Your task to perform on an android device: Search for bose soundlink on walmart.com, select the first entry, add it to the cart, then select checkout. Image 0: 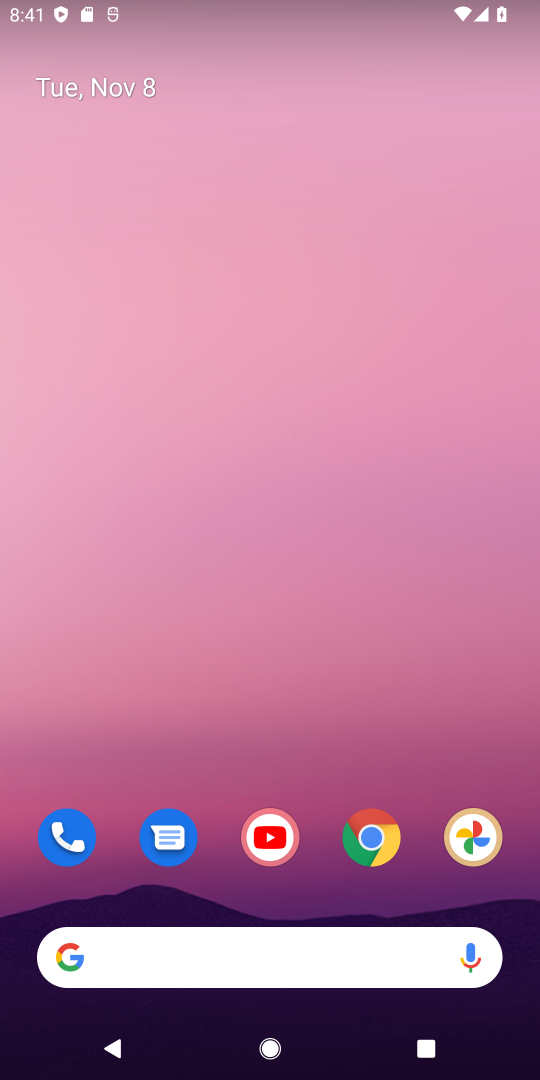
Step 0: click (359, 840)
Your task to perform on an android device: Search for bose soundlink on walmart.com, select the first entry, add it to the cart, then select checkout. Image 1: 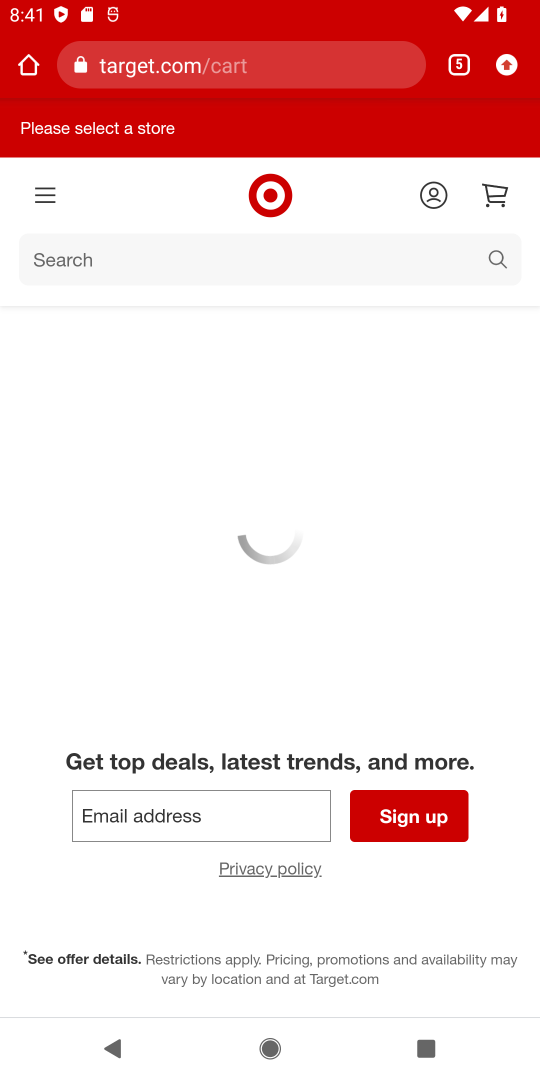
Step 1: click (471, 61)
Your task to perform on an android device: Search for bose soundlink on walmart.com, select the first entry, add it to the cart, then select checkout. Image 2: 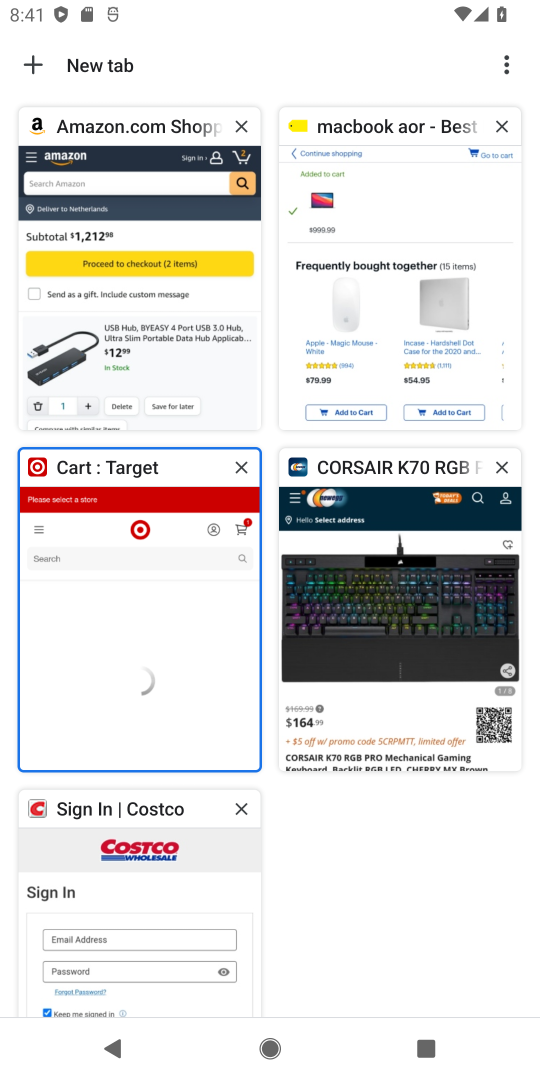
Step 2: click (40, 72)
Your task to perform on an android device: Search for bose soundlink on walmart.com, select the first entry, add it to the cart, then select checkout. Image 3: 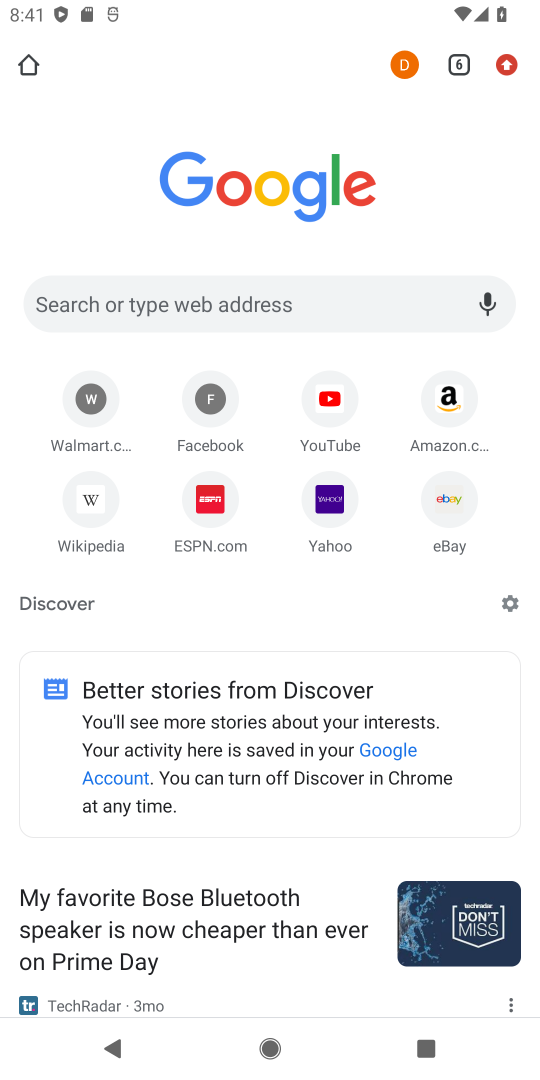
Step 3: click (295, 295)
Your task to perform on an android device: Search for bose soundlink on walmart.com, select the first entry, add it to the cart, then select checkout. Image 4: 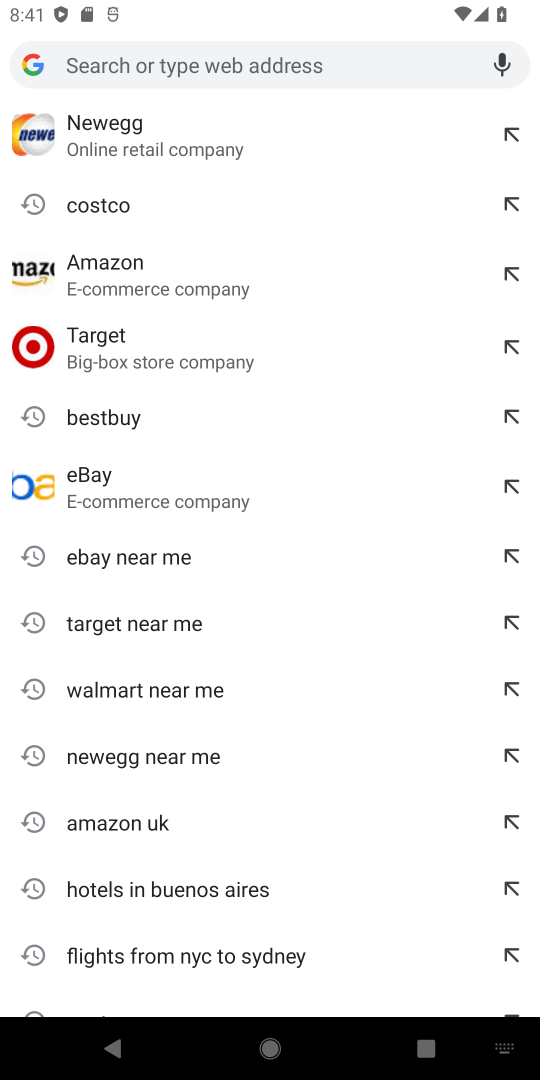
Step 4: type "walmart"
Your task to perform on an android device: Search for bose soundlink on walmart.com, select the first entry, add it to the cart, then select checkout. Image 5: 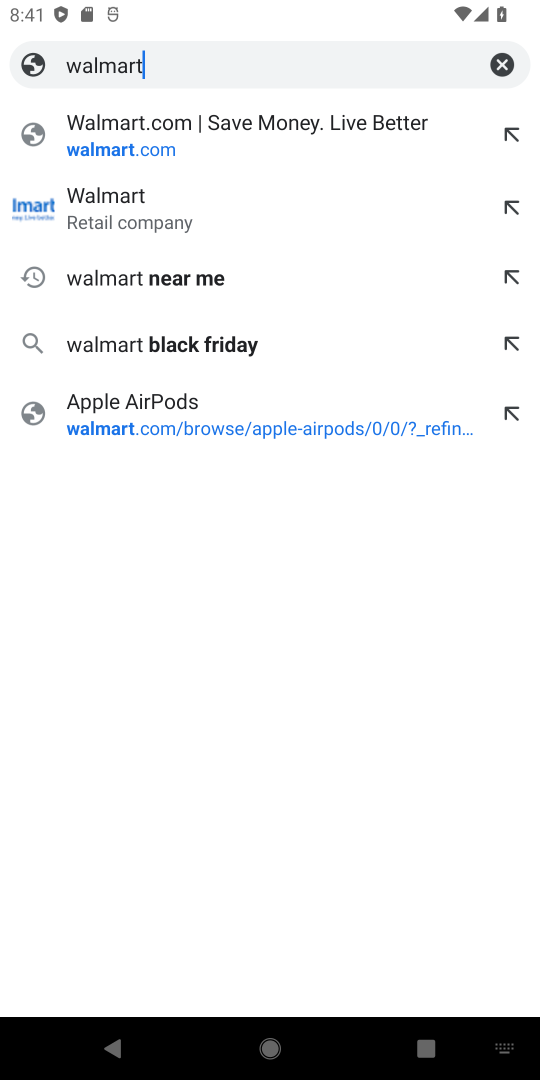
Step 5: click (77, 139)
Your task to perform on an android device: Search for bose soundlink on walmart.com, select the first entry, add it to the cart, then select checkout. Image 6: 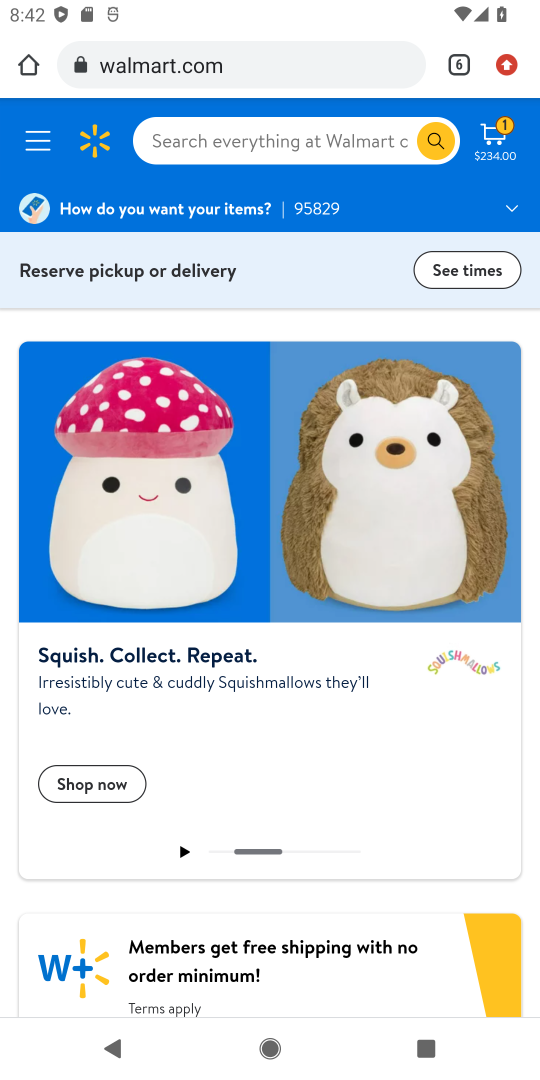
Step 6: click (237, 136)
Your task to perform on an android device: Search for bose soundlink on walmart.com, select the first entry, add it to the cart, then select checkout. Image 7: 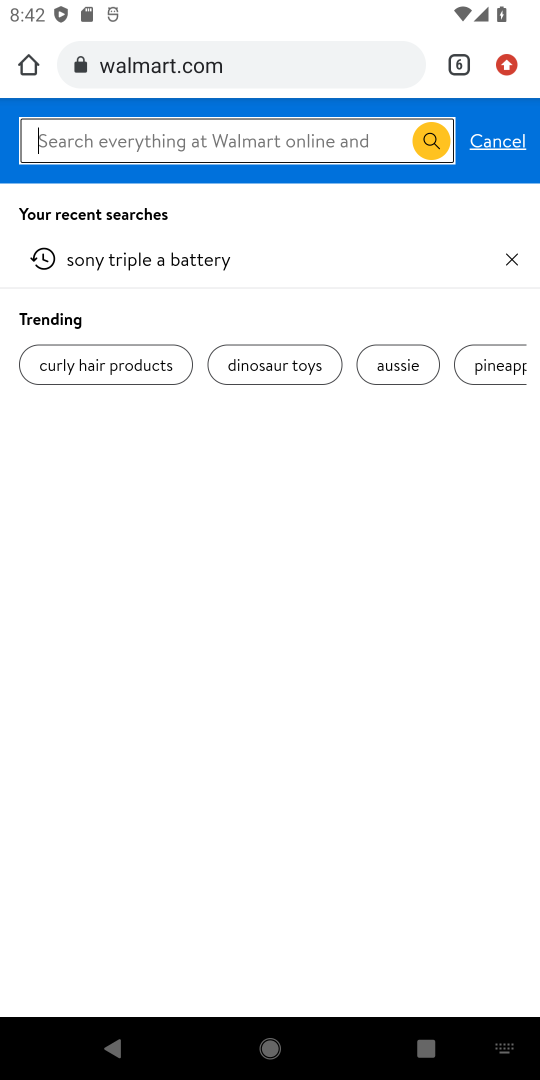
Step 7: type "bose soundlink"
Your task to perform on an android device: Search for bose soundlink on walmart.com, select the first entry, add it to the cart, then select checkout. Image 8: 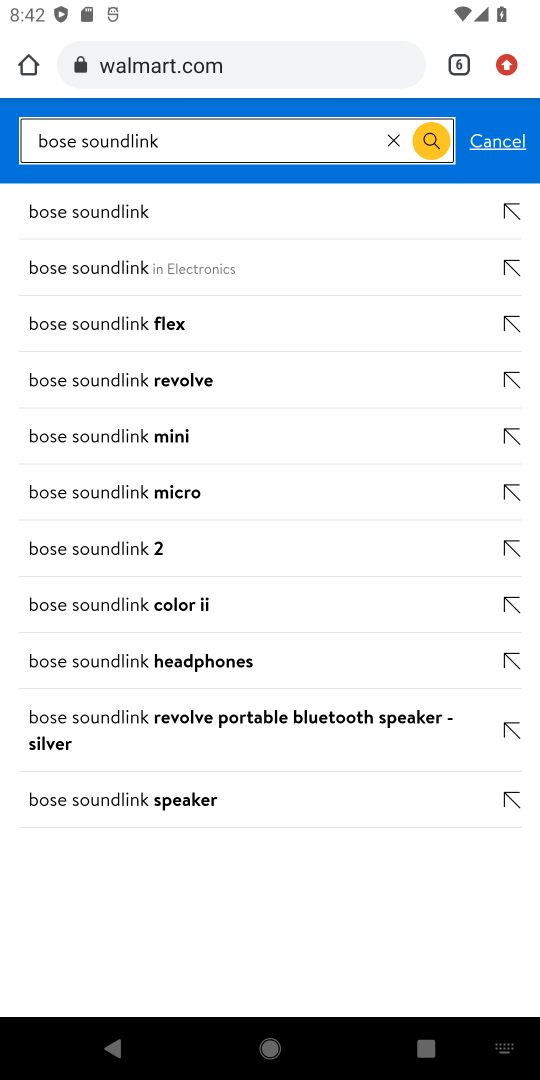
Step 8: click (88, 264)
Your task to perform on an android device: Search for bose soundlink on walmart.com, select the first entry, add it to the cart, then select checkout. Image 9: 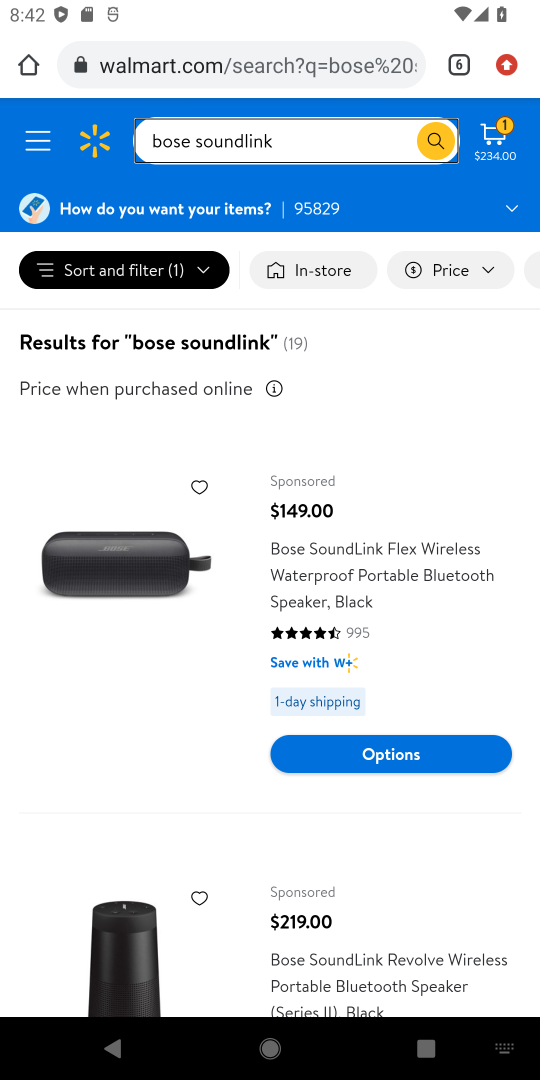
Step 9: click (439, 586)
Your task to perform on an android device: Search for bose soundlink on walmart.com, select the first entry, add it to the cart, then select checkout. Image 10: 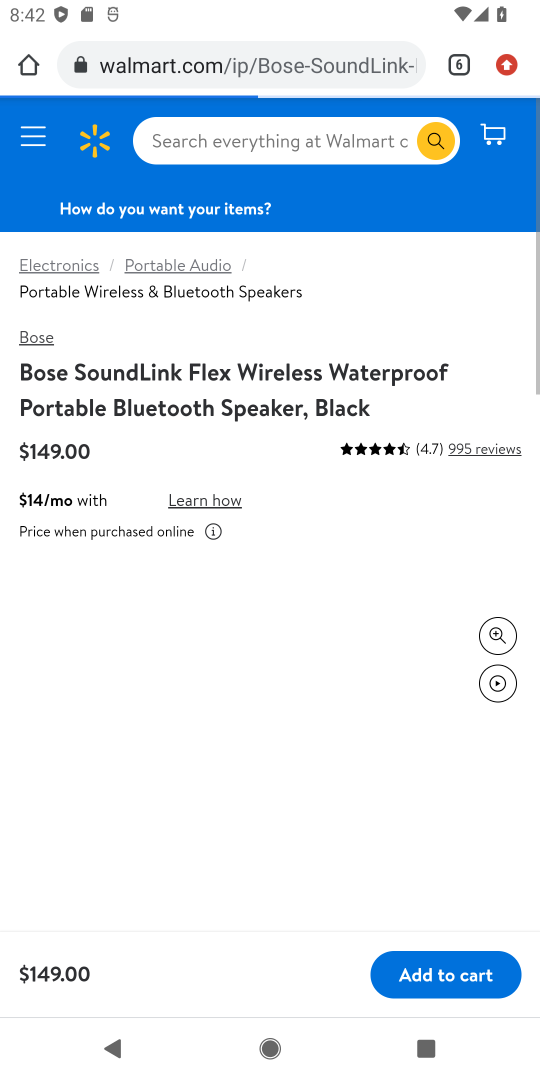
Step 10: click (439, 586)
Your task to perform on an android device: Search for bose soundlink on walmart.com, select the first entry, add it to the cart, then select checkout. Image 11: 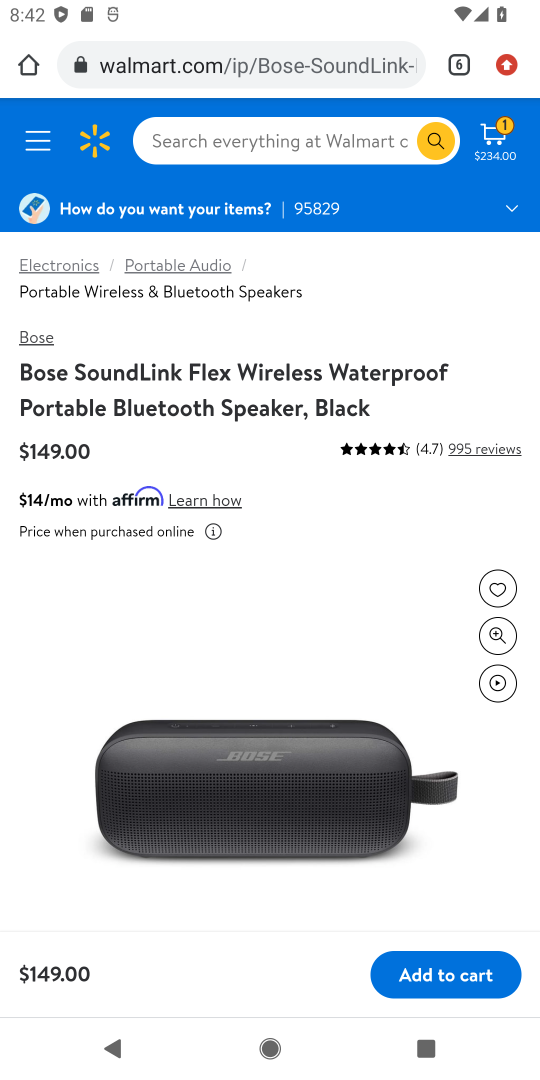
Step 11: click (460, 973)
Your task to perform on an android device: Search for bose soundlink on walmart.com, select the first entry, add it to the cart, then select checkout. Image 12: 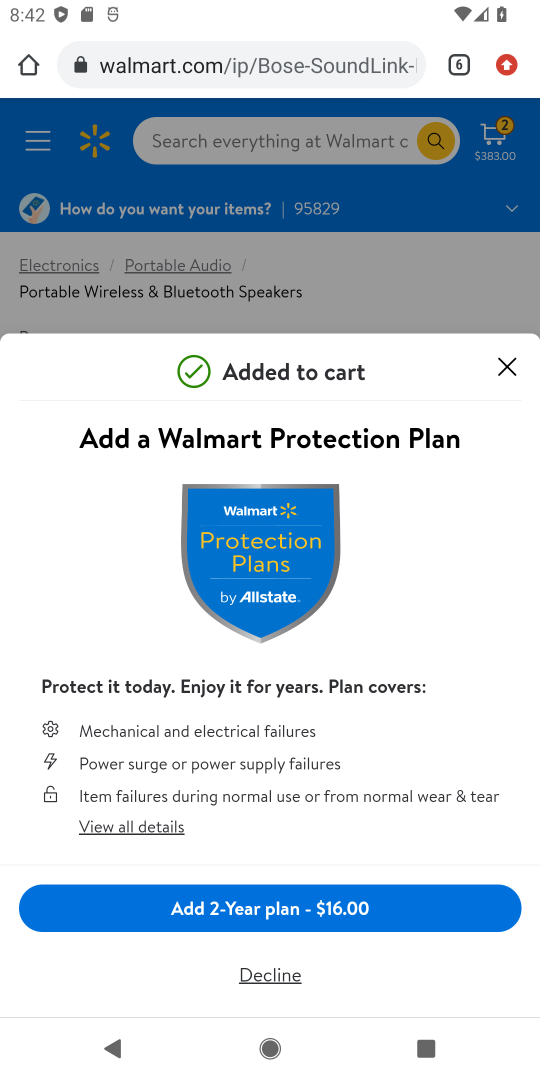
Step 12: click (276, 975)
Your task to perform on an android device: Search for bose soundlink on walmart.com, select the first entry, add it to the cart, then select checkout. Image 13: 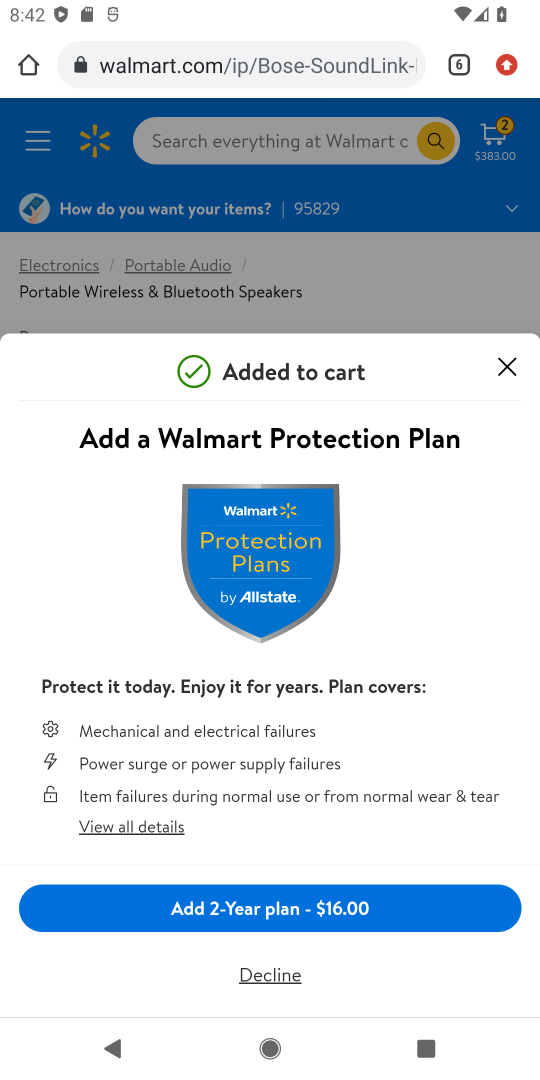
Step 13: click (499, 355)
Your task to perform on an android device: Search for bose soundlink on walmart.com, select the first entry, add it to the cart, then select checkout. Image 14: 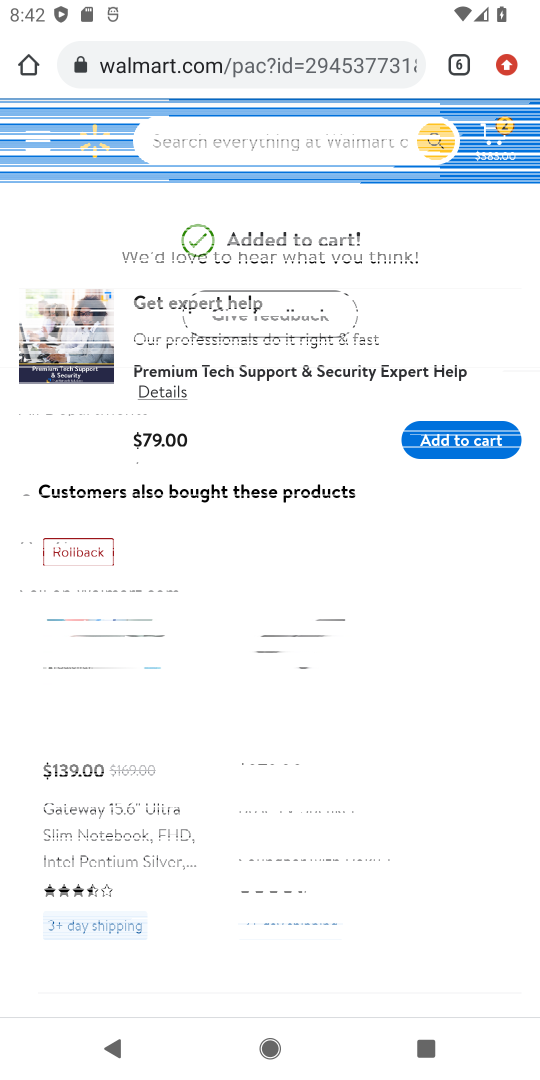
Step 14: click (503, 133)
Your task to perform on an android device: Search for bose soundlink on walmart.com, select the first entry, add it to the cart, then select checkout. Image 15: 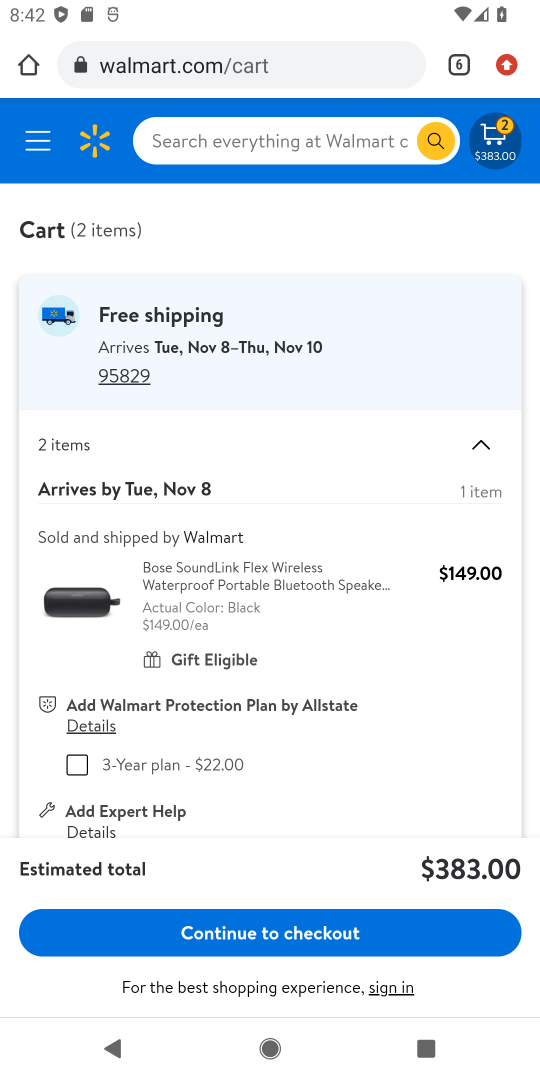
Step 15: click (238, 942)
Your task to perform on an android device: Search for bose soundlink on walmart.com, select the first entry, add it to the cart, then select checkout. Image 16: 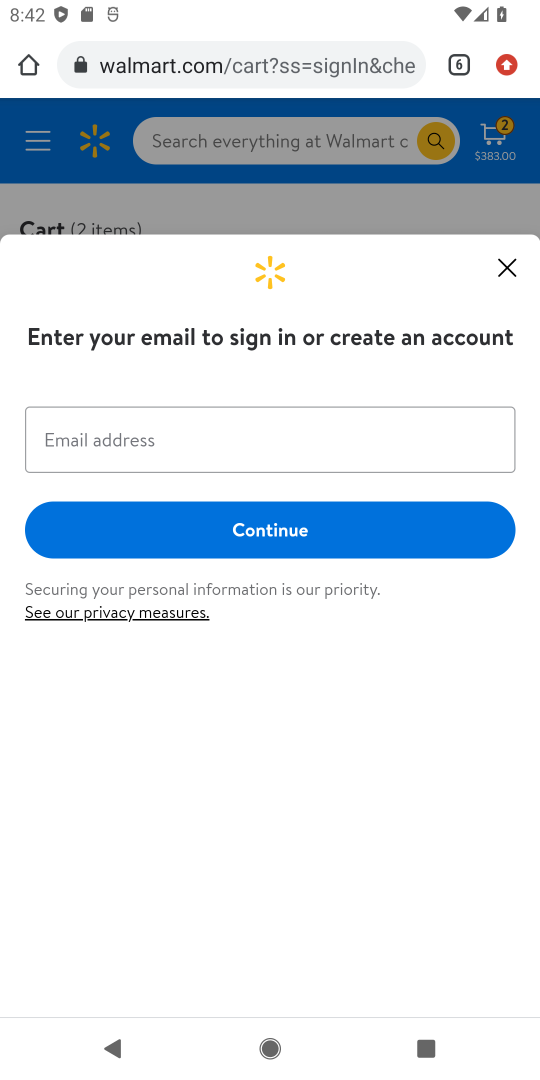
Step 16: task complete